Your task to perform on an android device: toggle show notifications on the lock screen Image 0: 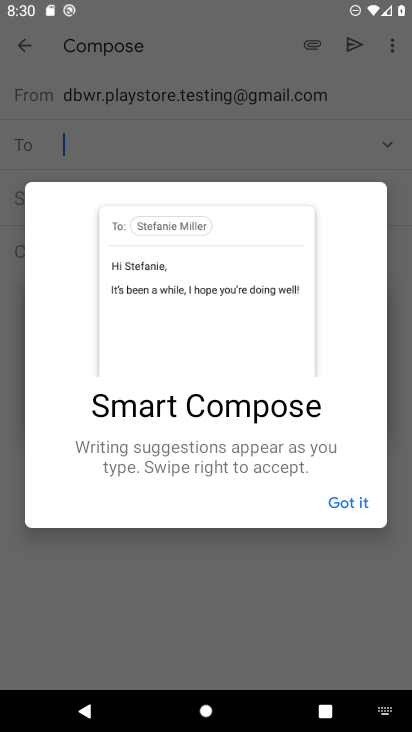
Step 0: press home button
Your task to perform on an android device: toggle show notifications on the lock screen Image 1: 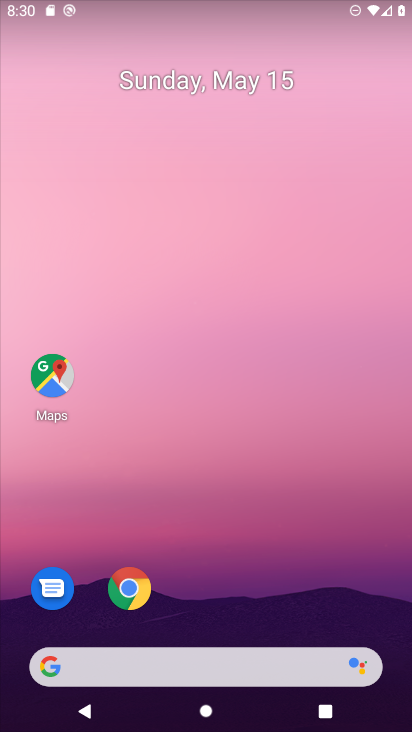
Step 1: drag from (224, 503) to (256, 130)
Your task to perform on an android device: toggle show notifications on the lock screen Image 2: 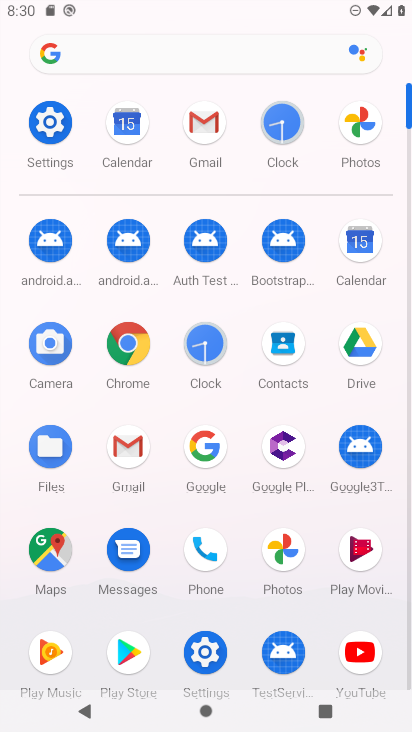
Step 2: click (51, 117)
Your task to perform on an android device: toggle show notifications on the lock screen Image 3: 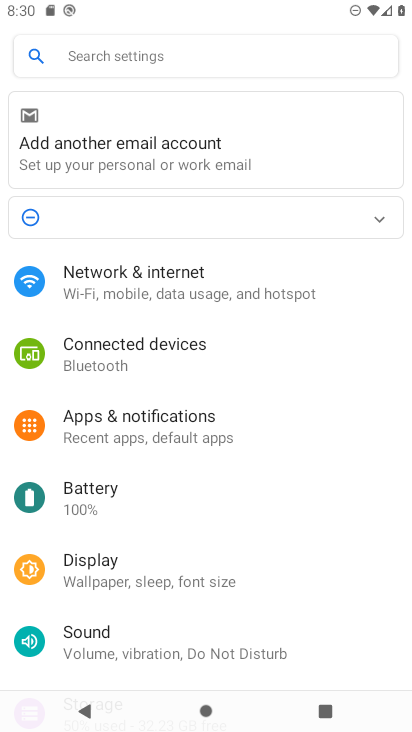
Step 3: click (188, 417)
Your task to perform on an android device: toggle show notifications on the lock screen Image 4: 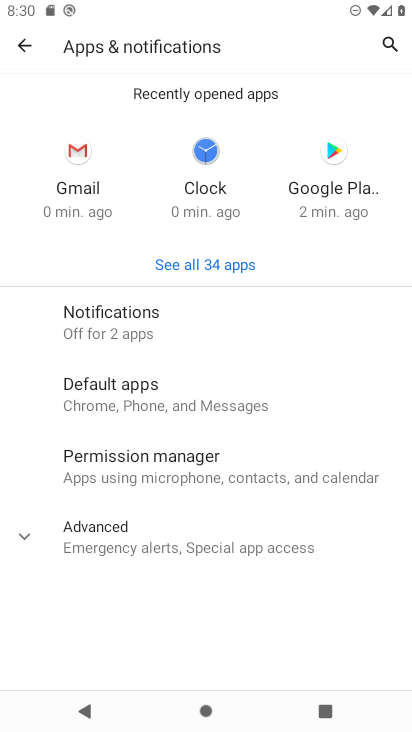
Step 4: click (162, 322)
Your task to perform on an android device: toggle show notifications on the lock screen Image 5: 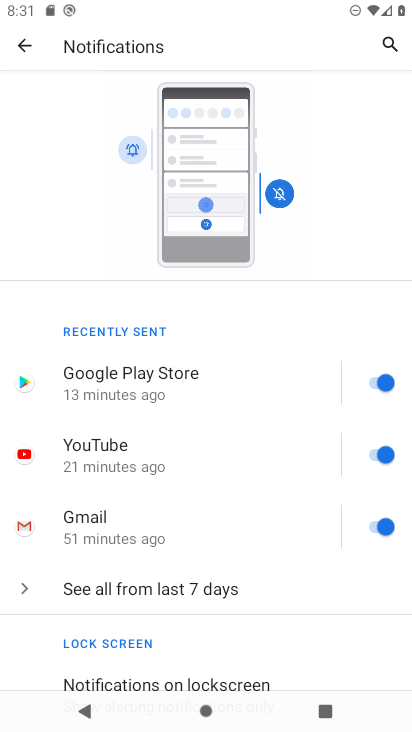
Step 5: click (249, 665)
Your task to perform on an android device: toggle show notifications on the lock screen Image 6: 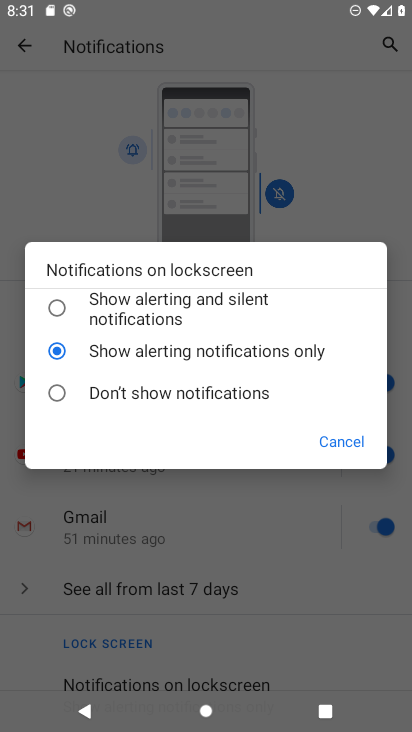
Step 6: click (61, 302)
Your task to perform on an android device: toggle show notifications on the lock screen Image 7: 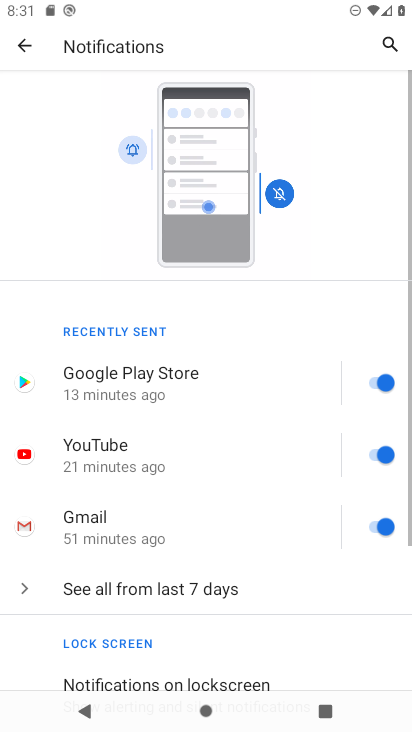
Step 7: task complete